Your task to perform on an android device: Go to network settings Image 0: 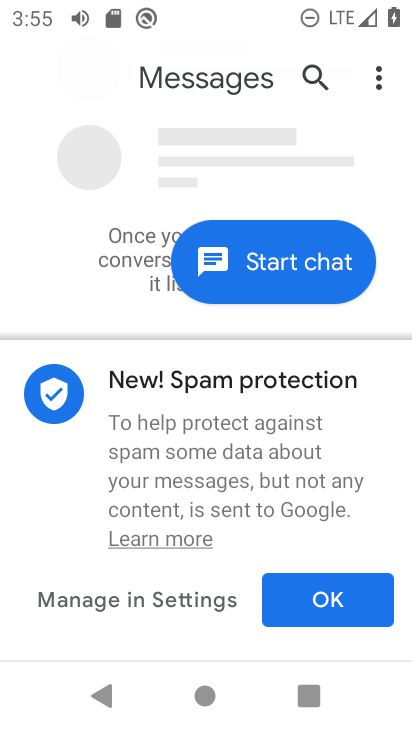
Step 0: press back button
Your task to perform on an android device: Go to network settings Image 1: 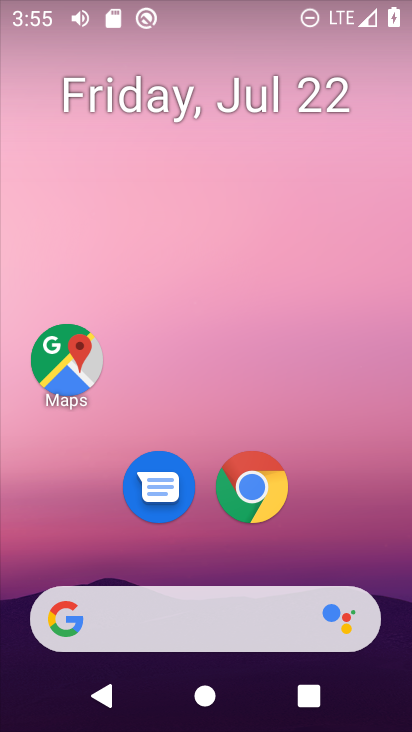
Step 1: drag from (72, 573) to (145, 5)
Your task to perform on an android device: Go to network settings Image 2: 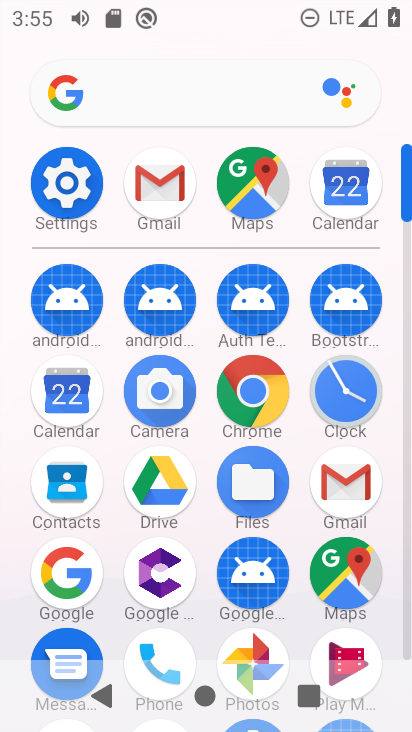
Step 2: click (50, 177)
Your task to perform on an android device: Go to network settings Image 3: 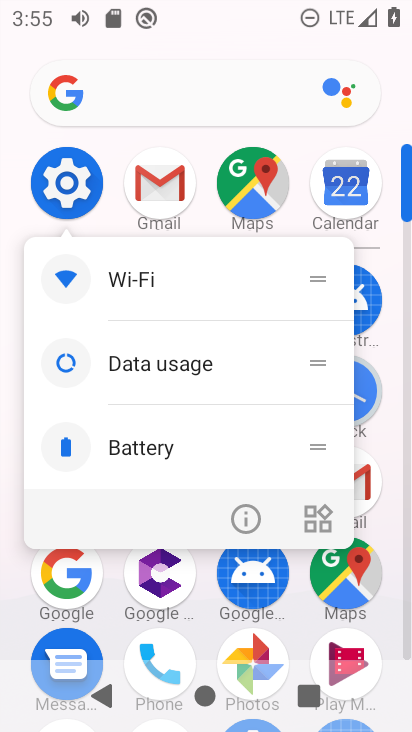
Step 3: click (65, 173)
Your task to perform on an android device: Go to network settings Image 4: 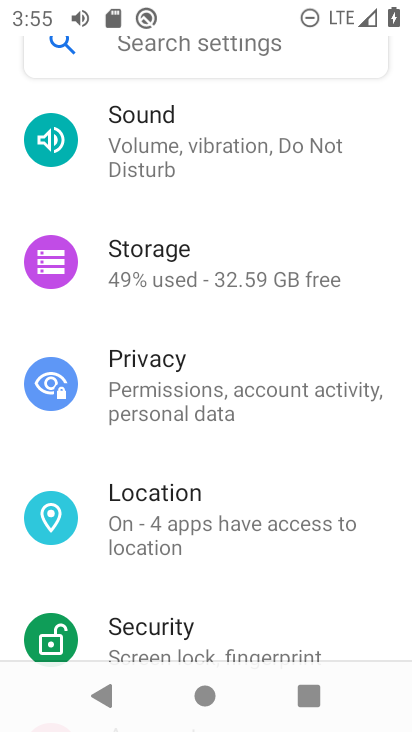
Step 4: drag from (225, 203) to (252, 726)
Your task to perform on an android device: Go to network settings Image 5: 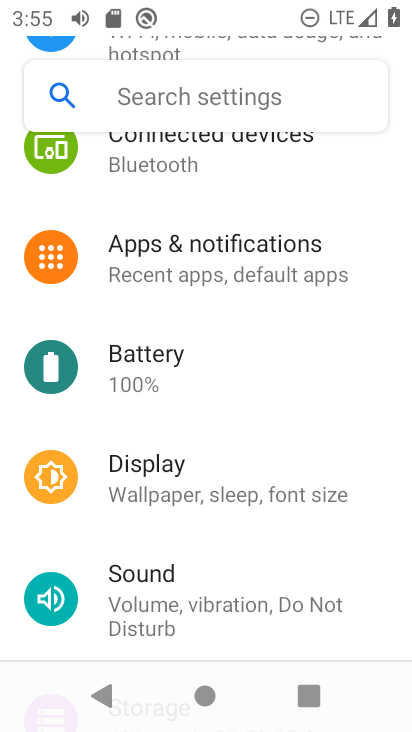
Step 5: drag from (231, 303) to (152, 719)
Your task to perform on an android device: Go to network settings Image 6: 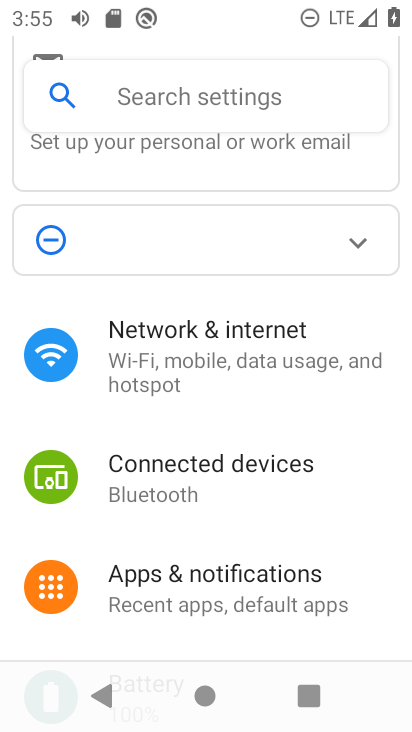
Step 6: click (199, 357)
Your task to perform on an android device: Go to network settings Image 7: 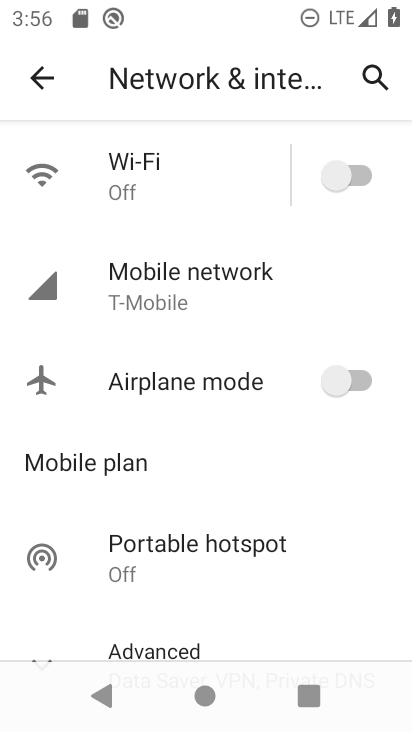
Step 7: task complete